Your task to perform on an android device: Search for the best selling books Image 0: 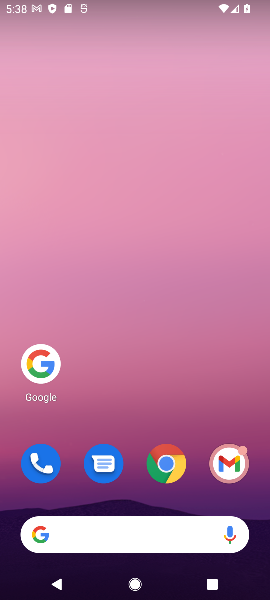
Step 0: drag from (121, 161) to (126, 119)
Your task to perform on an android device: Search for the best selling books Image 1: 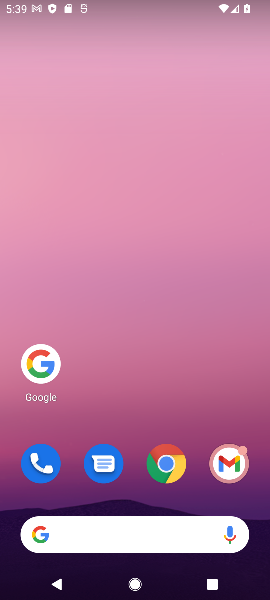
Step 1: click (45, 365)
Your task to perform on an android device: Search for the best selling books Image 2: 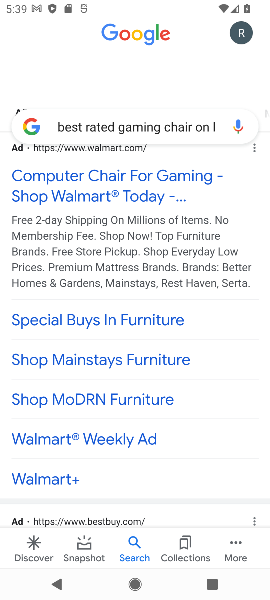
Step 2: click (170, 124)
Your task to perform on an android device: Search for the best selling books Image 3: 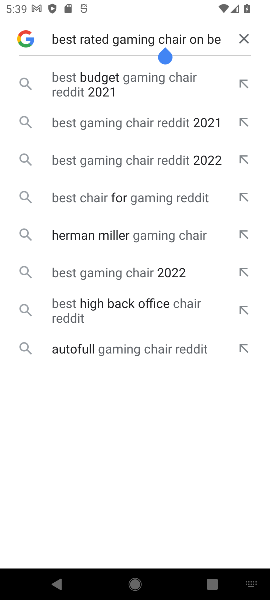
Step 3: click (246, 38)
Your task to perform on an android device: Search for the best selling books Image 4: 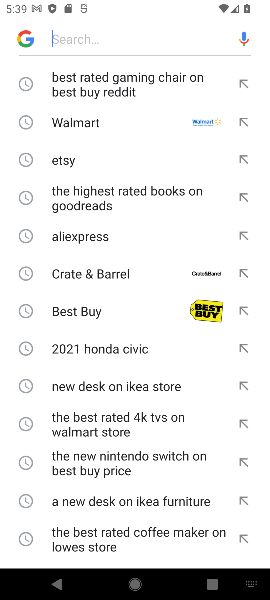
Step 4: click (157, 32)
Your task to perform on an android device: Search for the best selling books Image 5: 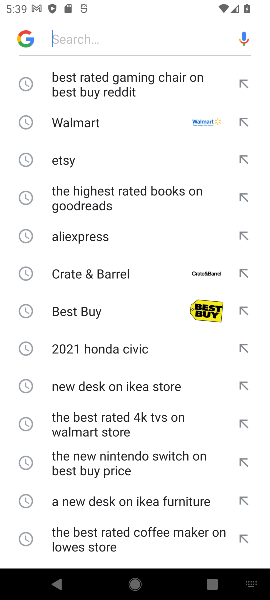
Step 5: type " the best selling books "
Your task to perform on an android device: Search for the best selling books Image 6: 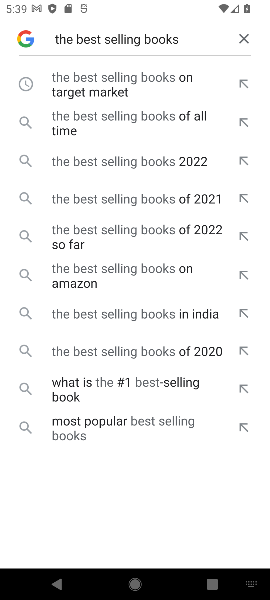
Step 6: click (131, 169)
Your task to perform on an android device: Search for the best selling books Image 7: 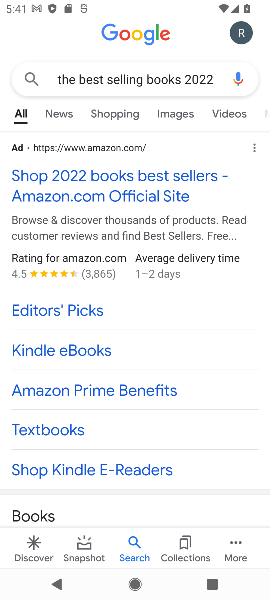
Step 7: click (116, 183)
Your task to perform on an android device: Search for the best selling books Image 8: 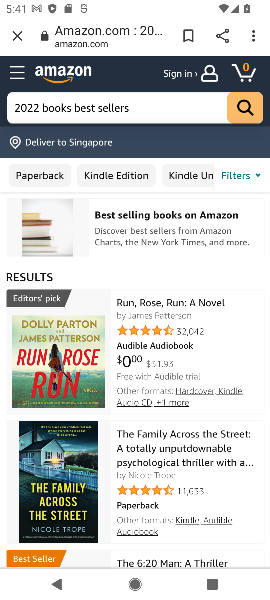
Step 8: task complete